Your task to perform on an android device: manage bookmarks in the chrome app Image 0: 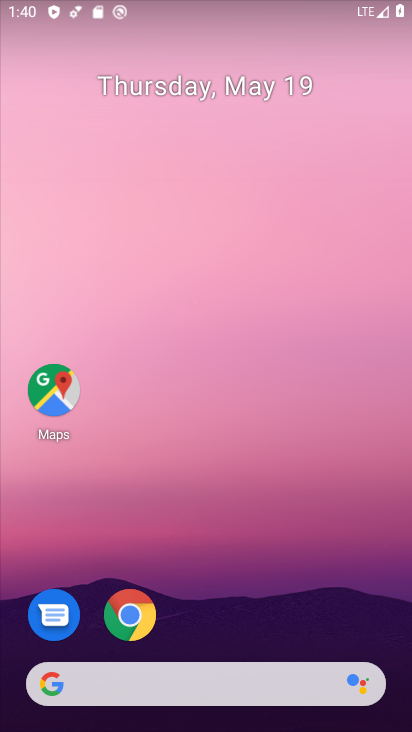
Step 0: drag from (278, 604) to (308, 267)
Your task to perform on an android device: manage bookmarks in the chrome app Image 1: 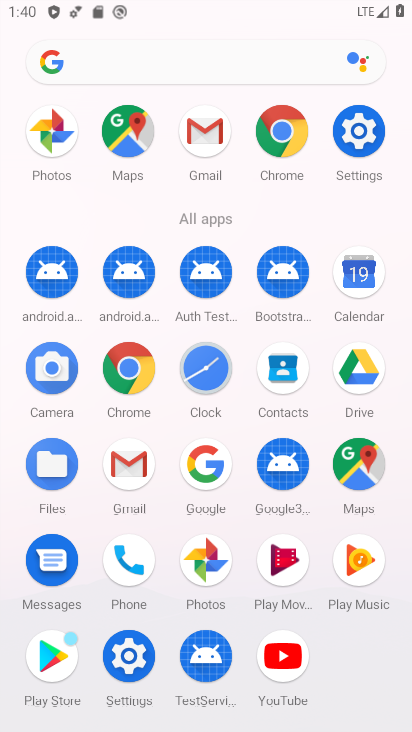
Step 1: click (283, 128)
Your task to perform on an android device: manage bookmarks in the chrome app Image 2: 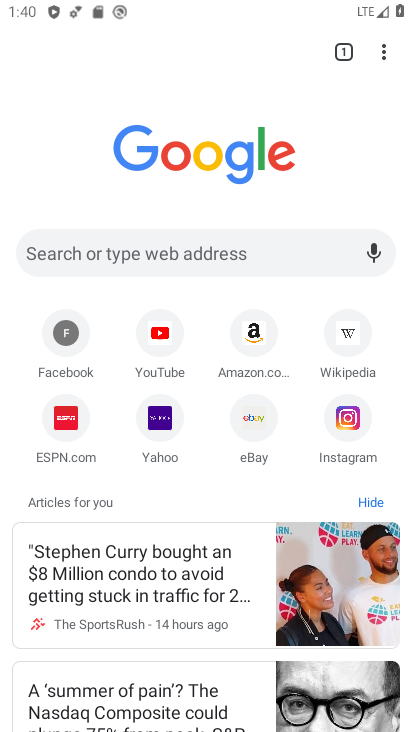
Step 2: click (390, 56)
Your task to perform on an android device: manage bookmarks in the chrome app Image 3: 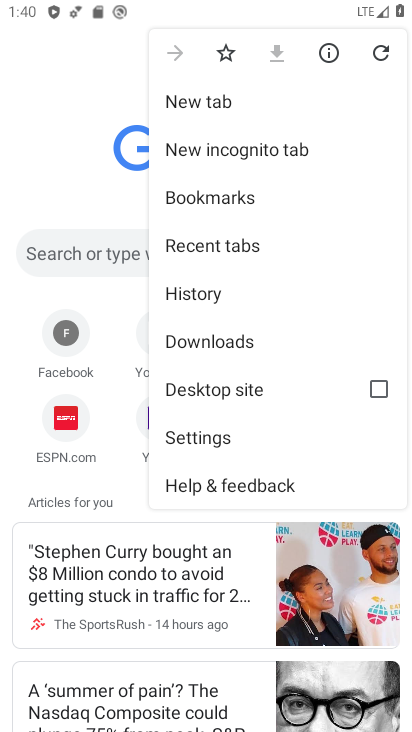
Step 3: click (239, 205)
Your task to perform on an android device: manage bookmarks in the chrome app Image 4: 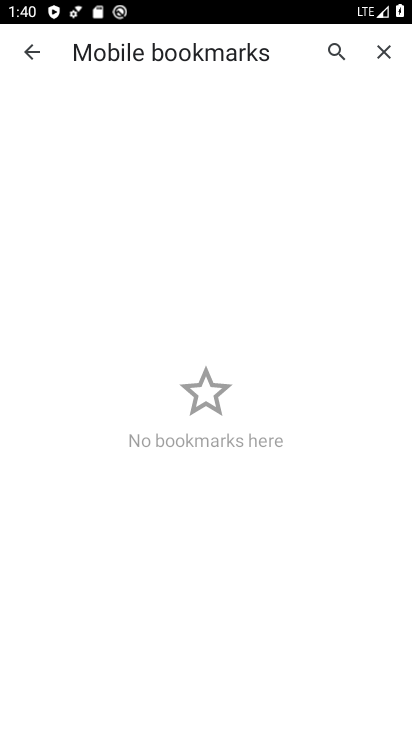
Step 4: task complete